Your task to perform on an android device: open sync settings in chrome Image 0: 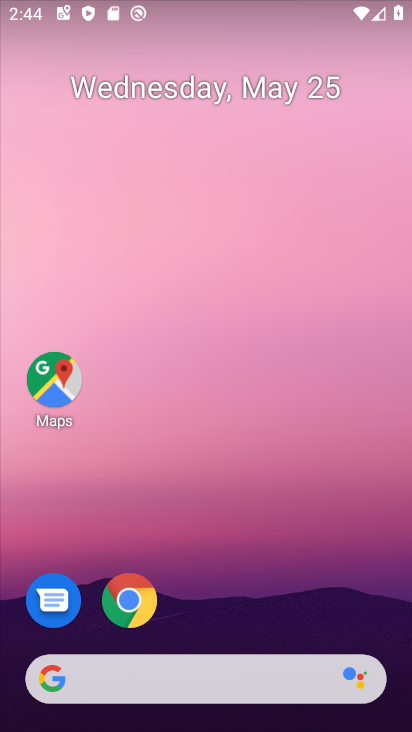
Step 0: click (49, 377)
Your task to perform on an android device: open sync settings in chrome Image 1: 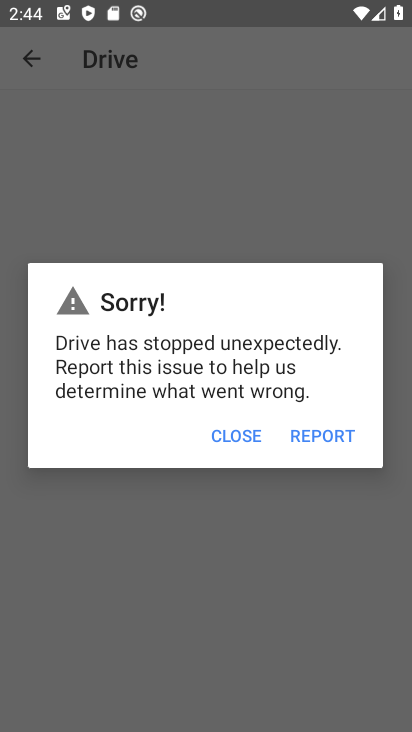
Step 1: press home button
Your task to perform on an android device: open sync settings in chrome Image 2: 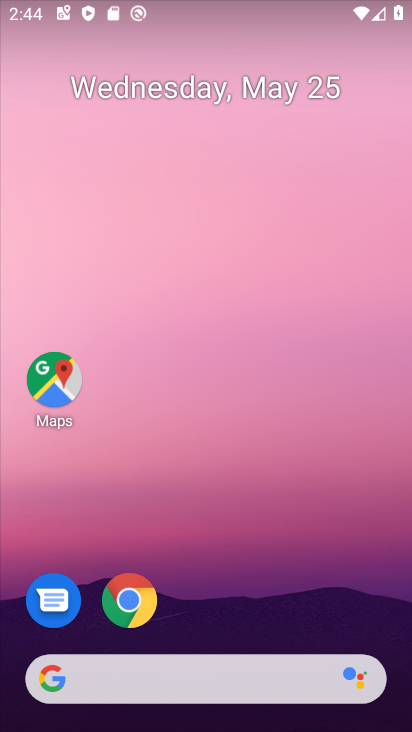
Step 2: click (122, 592)
Your task to perform on an android device: open sync settings in chrome Image 3: 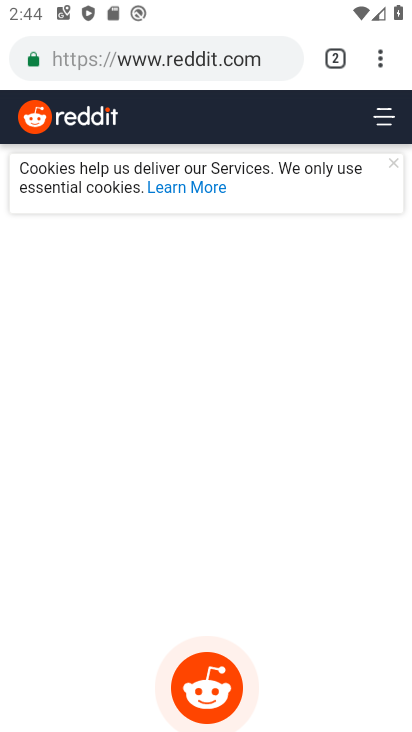
Step 3: click (374, 60)
Your task to perform on an android device: open sync settings in chrome Image 4: 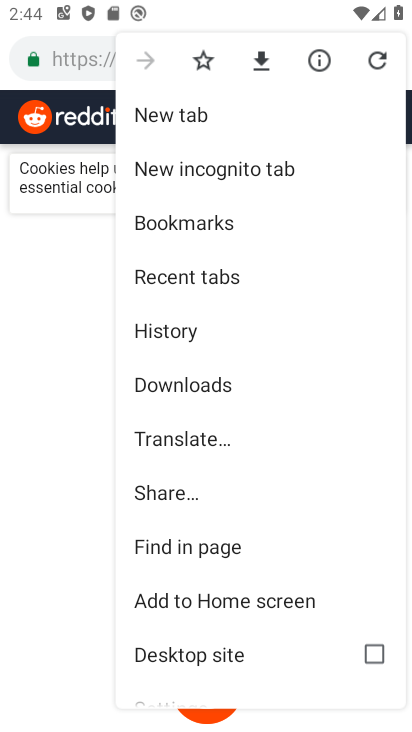
Step 4: drag from (130, 681) to (262, 204)
Your task to perform on an android device: open sync settings in chrome Image 5: 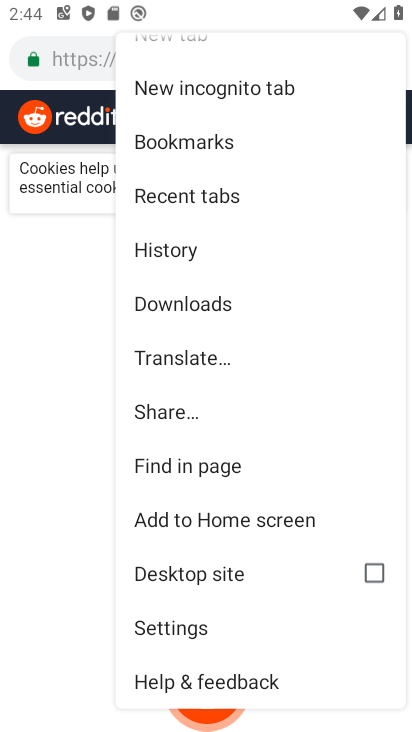
Step 5: click (167, 617)
Your task to perform on an android device: open sync settings in chrome Image 6: 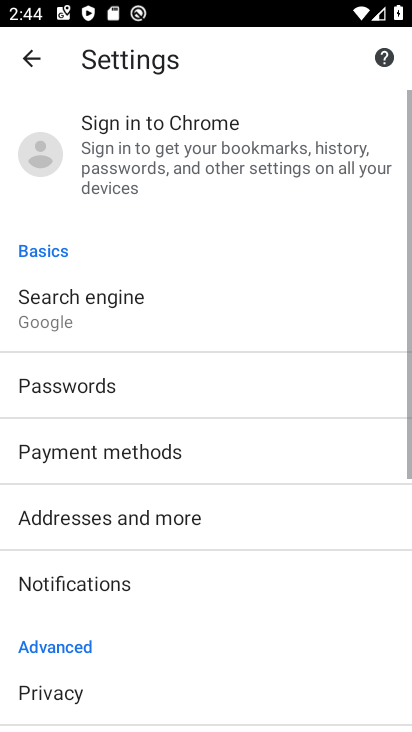
Step 6: drag from (39, 515) to (177, 207)
Your task to perform on an android device: open sync settings in chrome Image 7: 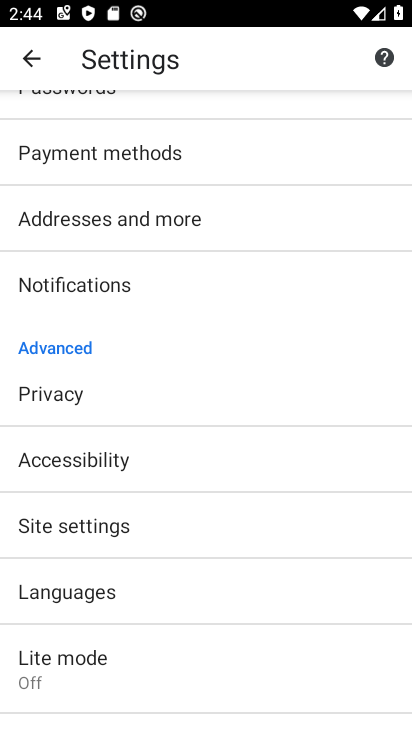
Step 7: click (75, 540)
Your task to perform on an android device: open sync settings in chrome Image 8: 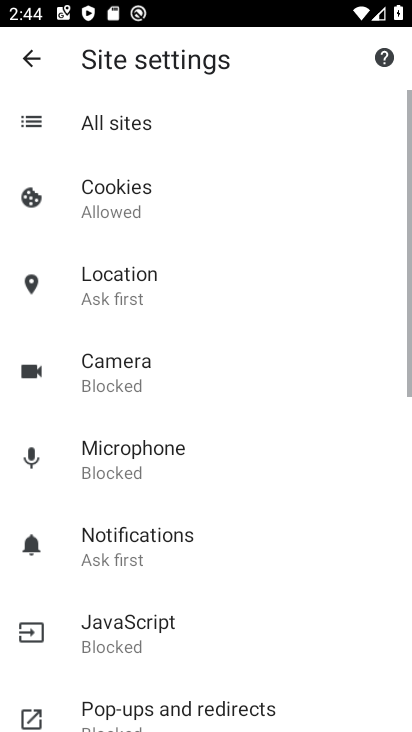
Step 8: drag from (8, 519) to (184, 198)
Your task to perform on an android device: open sync settings in chrome Image 9: 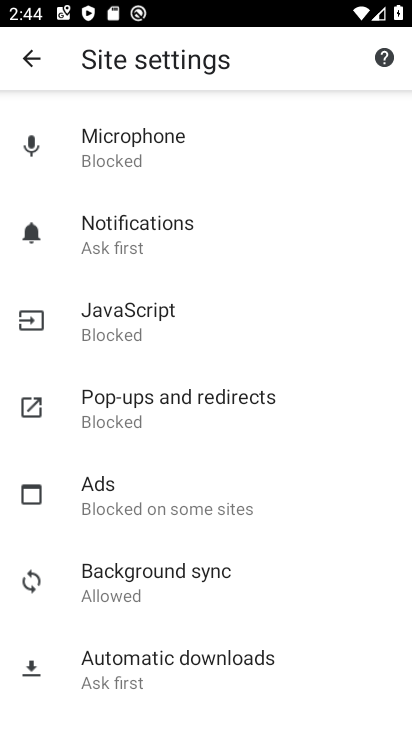
Step 9: click (119, 597)
Your task to perform on an android device: open sync settings in chrome Image 10: 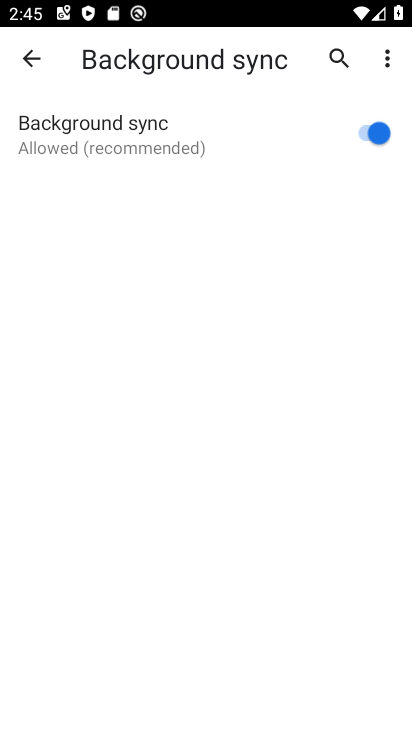
Step 10: task complete